Your task to perform on an android device: empty trash in google photos Image 0: 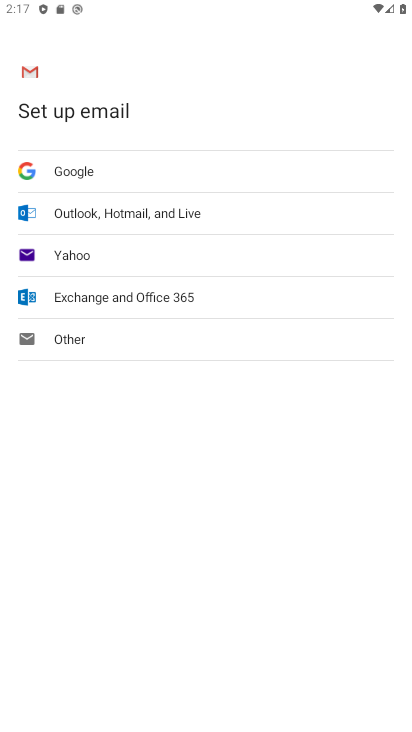
Step 0: task complete